Your task to perform on an android device: open a new tab in the chrome app Image 0: 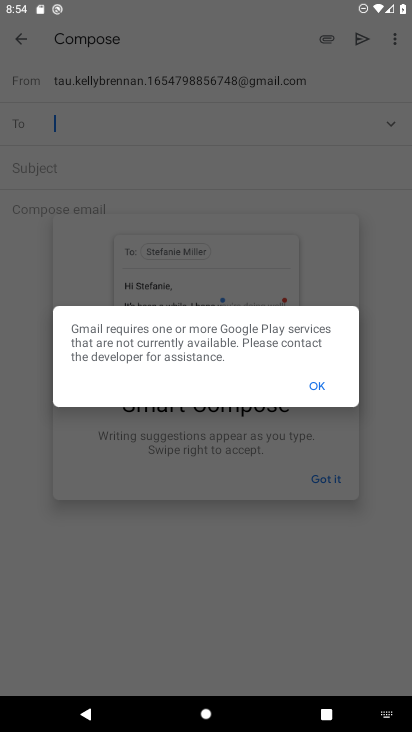
Step 0: press home button
Your task to perform on an android device: open a new tab in the chrome app Image 1: 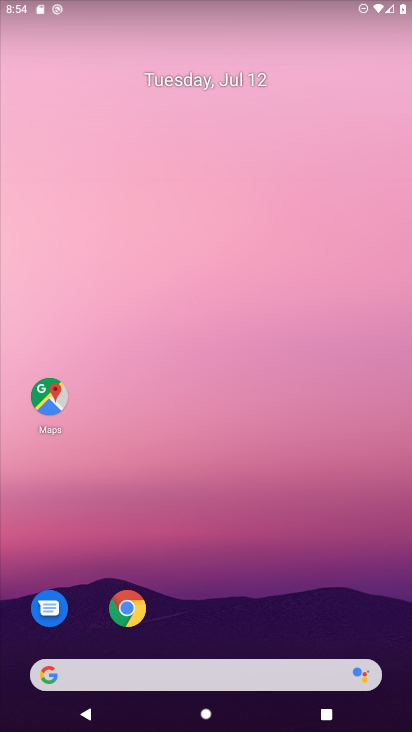
Step 1: click (130, 615)
Your task to perform on an android device: open a new tab in the chrome app Image 2: 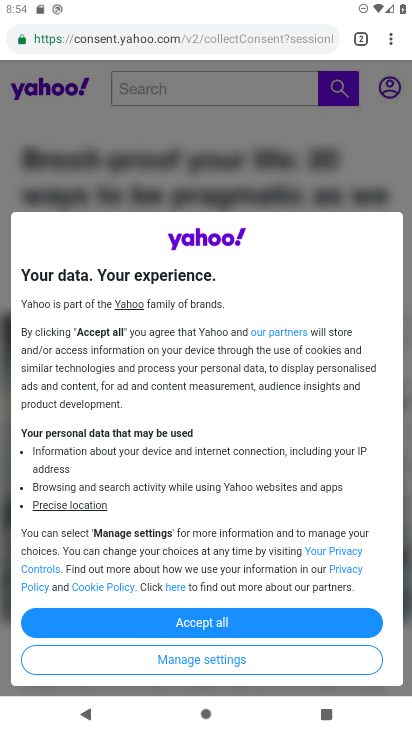
Step 2: click (368, 42)
Your task to perform on an android device: open a new tab in the chrome app Image 3: 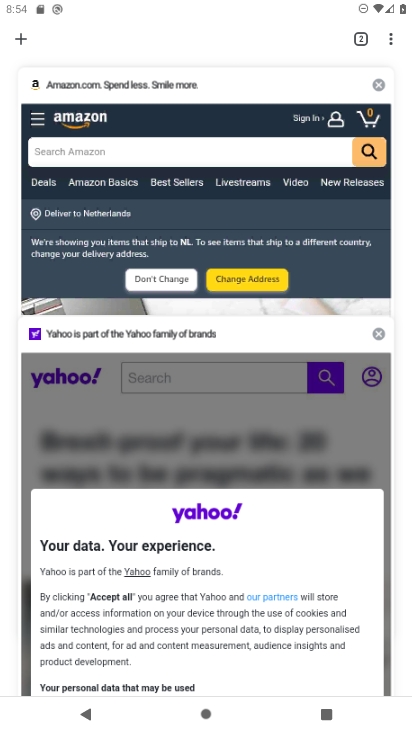
Step 3: click (25, 32)
Your task to perform on an android device: open a new tab in the chrome app Image 4: 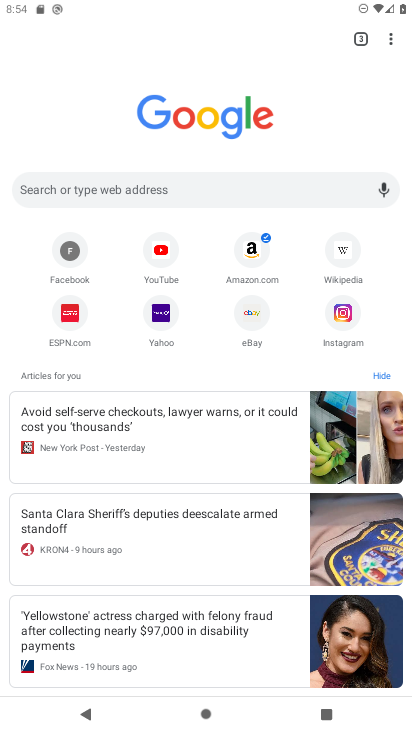
Step 4: task complete